Your task to perform on an android device: turn on improve location accuracy Image 0: 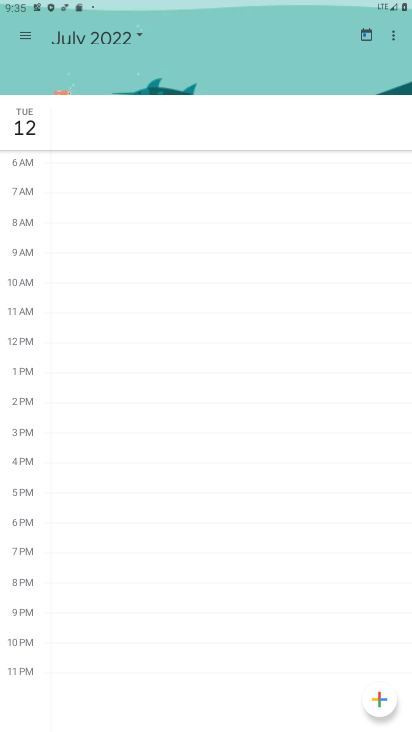
Step 0: press home button
Your task to perform on an android device: turn on improve location accuracy Image 1: 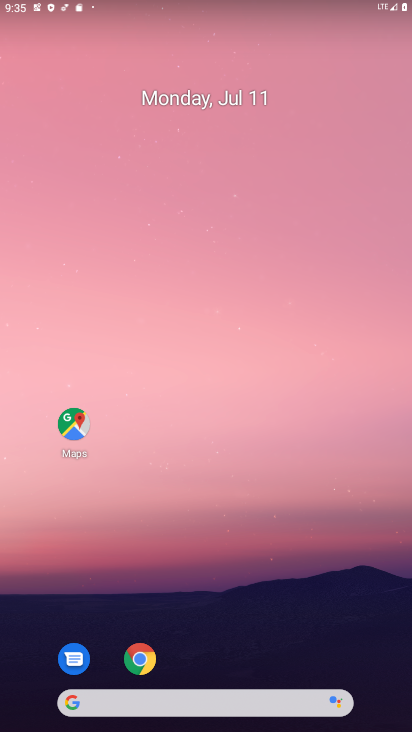
Step 1: click (237, 620)
Your task to perform on an android device: turn on improve location accuracy Image 2: 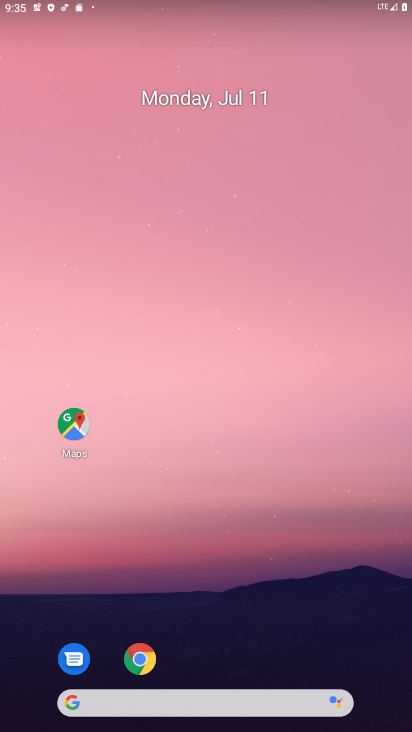
Step 2: drag from (237, 269) to (230, 159)
Your task to perform on an android device: turn on improve location accuracy Image 3: 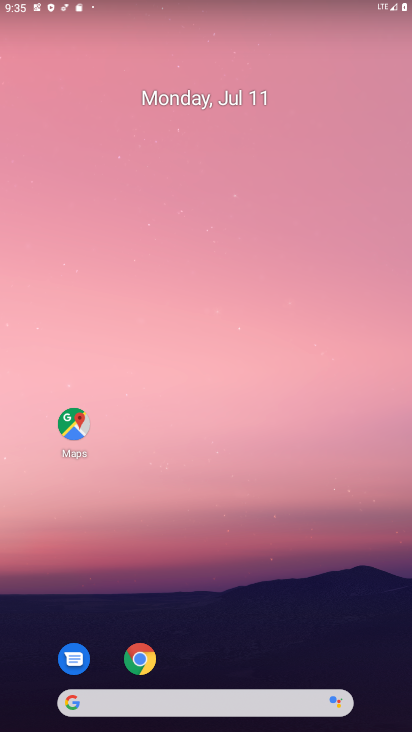
Step 3: drag from (210, 721) to (212, 192)
Your task to perform on an android device: turn on improve location accuracy Image 4: 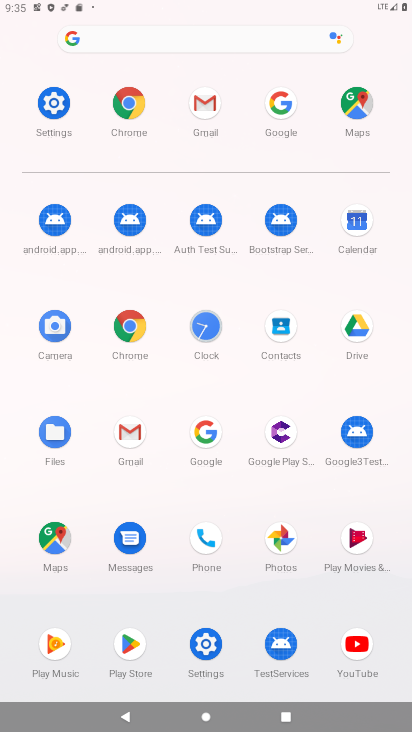
Step 4: click (54, 109)
Your task to perform on an android device: turn on improve location accuracy Image 5: 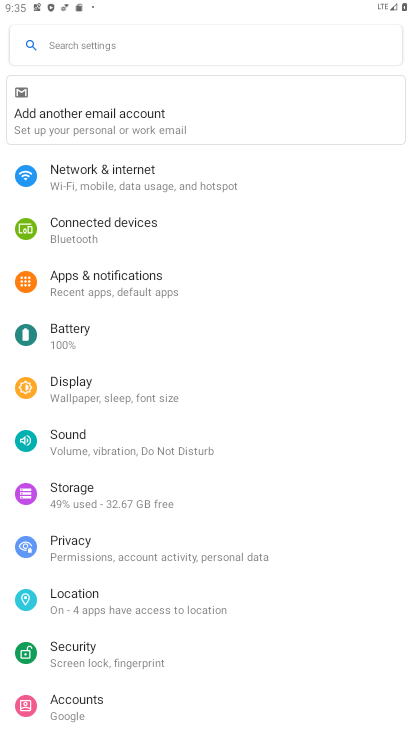
Step 5: click (77, 597)
Your task to perform on an android device: turn on improve location accuracy Image 6: 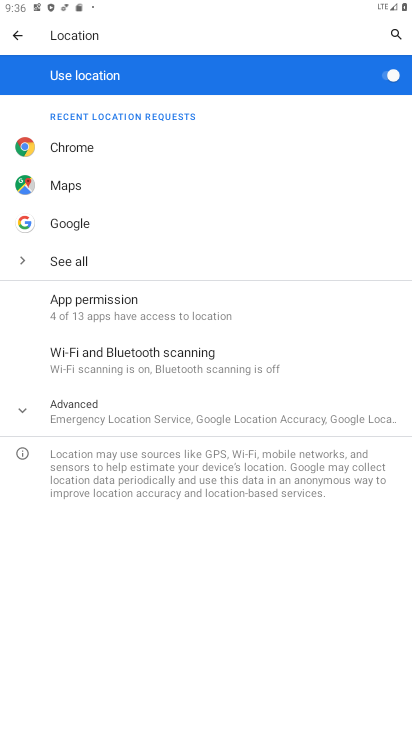
Step 6: click (74, 407)
Your task to perform on an android device: turn on improve location accuracy Image 7: 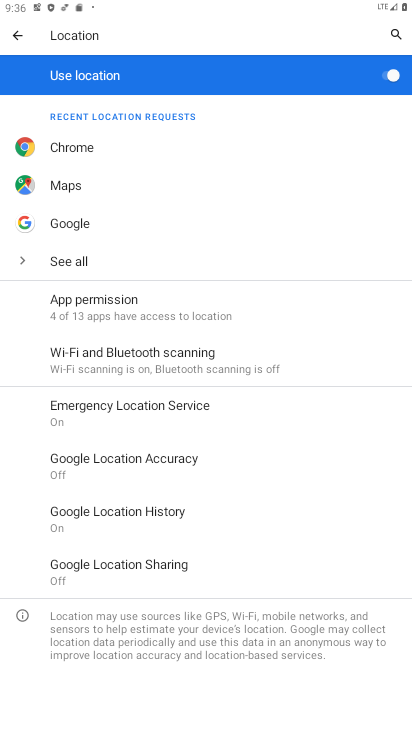
Step 7: click (93, 458)
Your task to perform on an android device: turn on improve location accuracy Image 8: 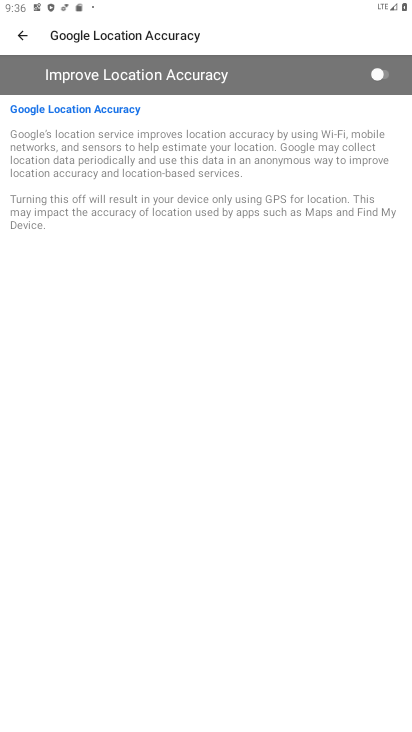
Step 8: click (385, 75)
Your task to perform on an android device: turn on improve location accuracy Image 9: 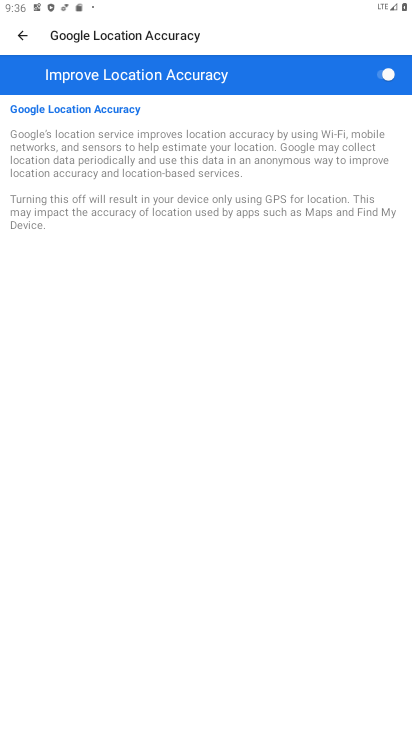
Step 9: task complete